Your task to perform on an android device: check battery use Image 0: 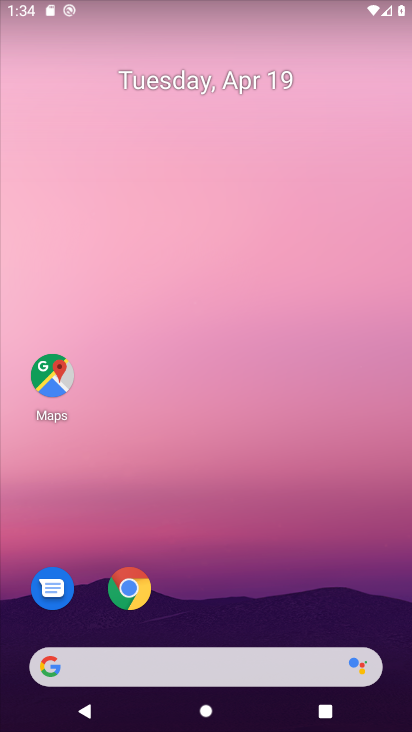
Step 0: drag from (198, 622) to (185, 57)
Your task to perform on an android device: check battery use Image 1: 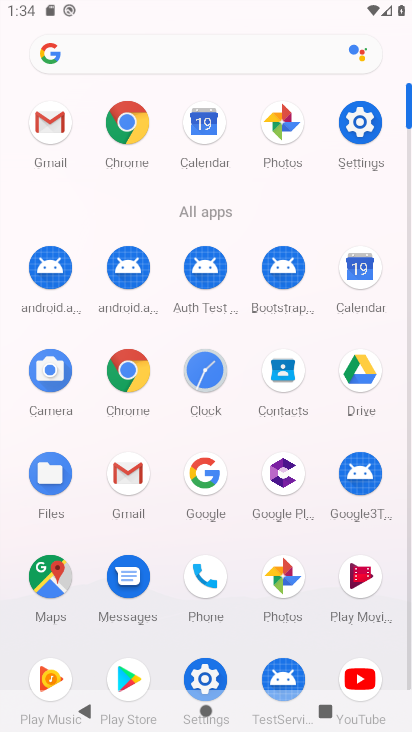
Step 1: click (357, 129)
Your task to perform on an android device: check battery use Image 2: 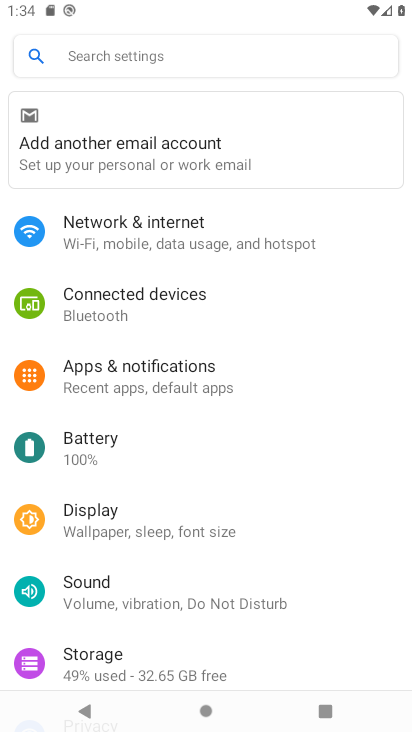
Step 2: click (155, 458)
Your task to perform on an android device: check battery use Image 3: 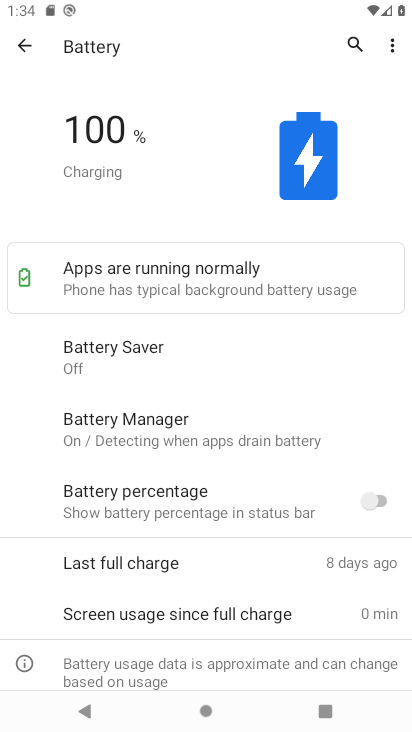
Step 3: task complete